Your task to perform on an android device: empty trash in google photos Image 0: 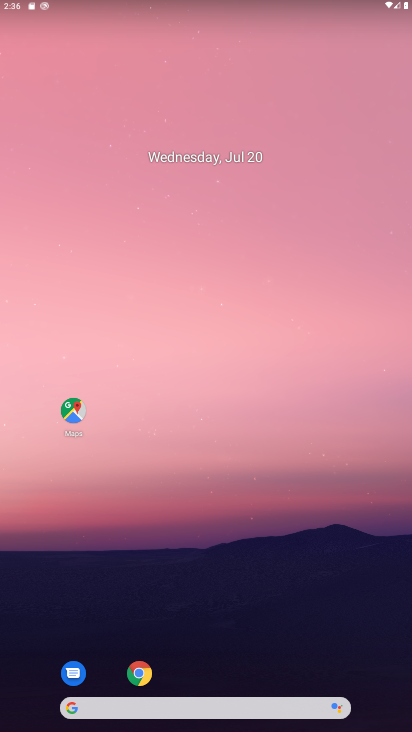
Step 0: drag from (207, 579) to (211, 80)
Your task to perform on an android device: empty trash in google photos Image 1: 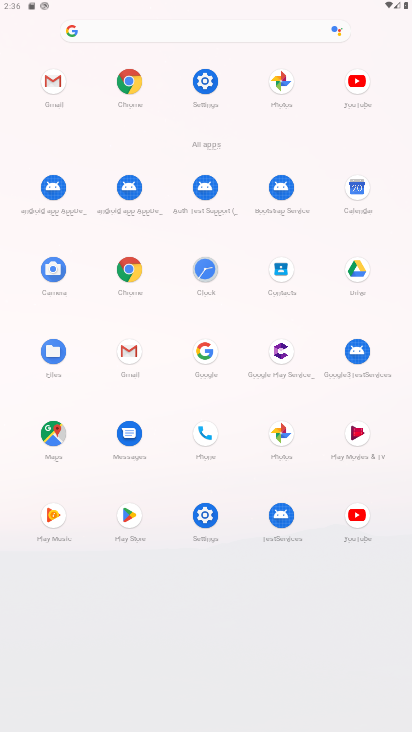
Step 1: click (278, 437)
Your task to perform on an android device: empty trash in google photos Image 2: 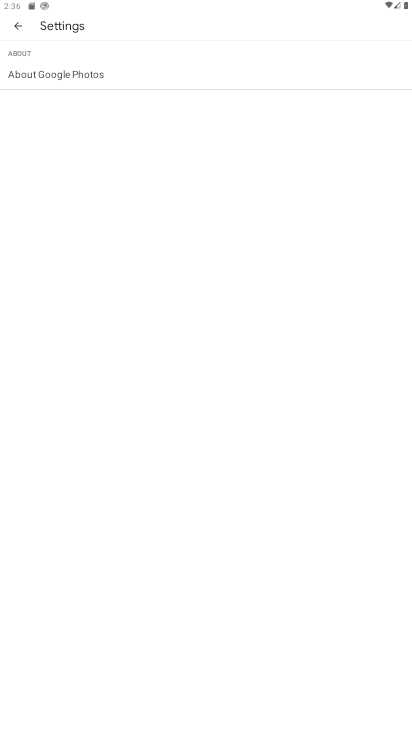
Step 2: click (17, 28)
Your task to perform on an android device: empty trash in google photos Image 3: 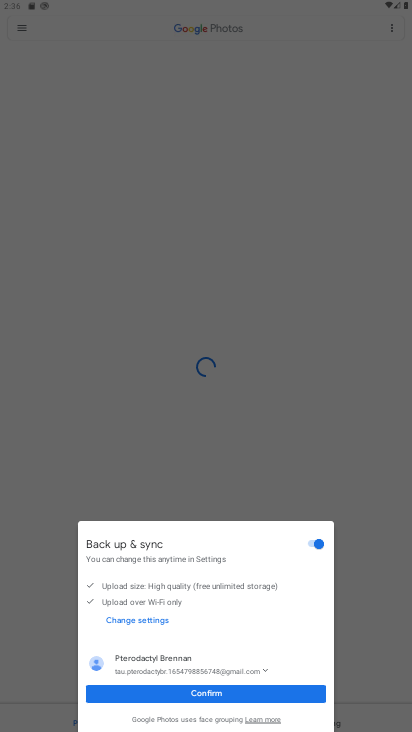
Step 3: click (18, 29)
Your task to perform on an android device: empty trash in google photos Image 4: 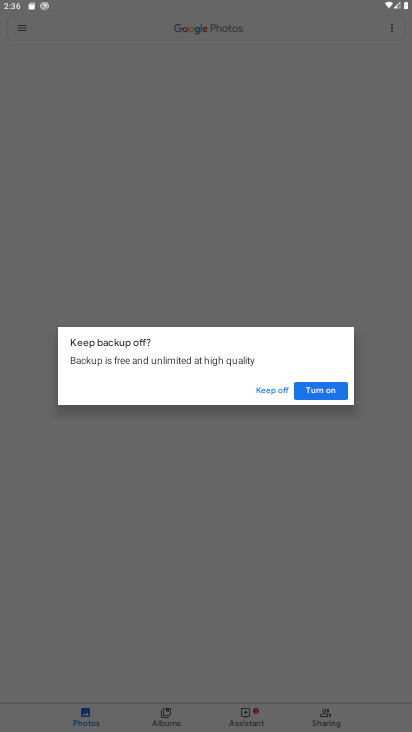
Step 4: click (333, 390)
Your task to perform on an android device: empty trash in google photos Image 5: 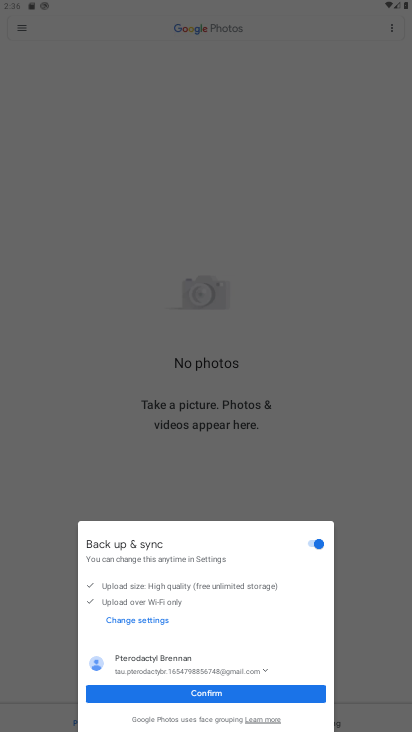
Step 5: click (228, 695)
Your task to perform on an android device: empty trash in google photos Image 6: 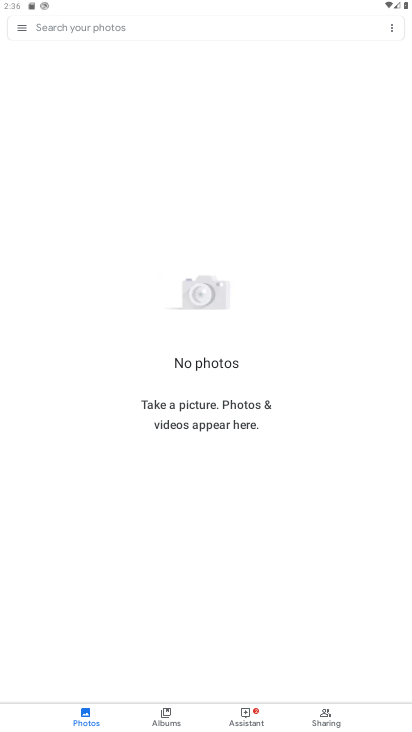
Step 6: click (22, 27)
Your task to perform on an android device: empty trash in google photos Image 7: 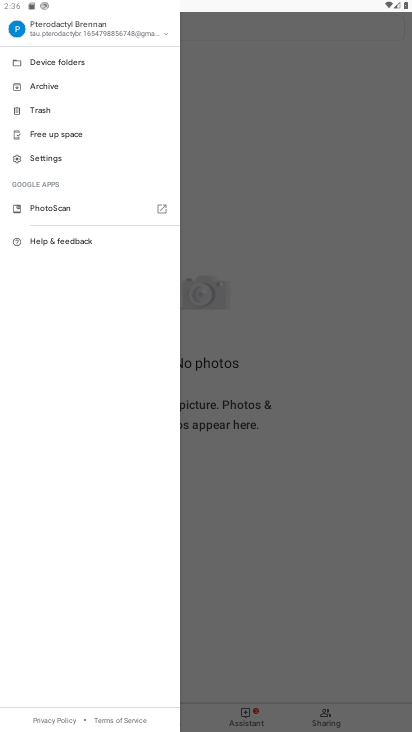
Step 7: click (46, 110)
Your task to perform on an android device: empty trash in google photos Image 8: 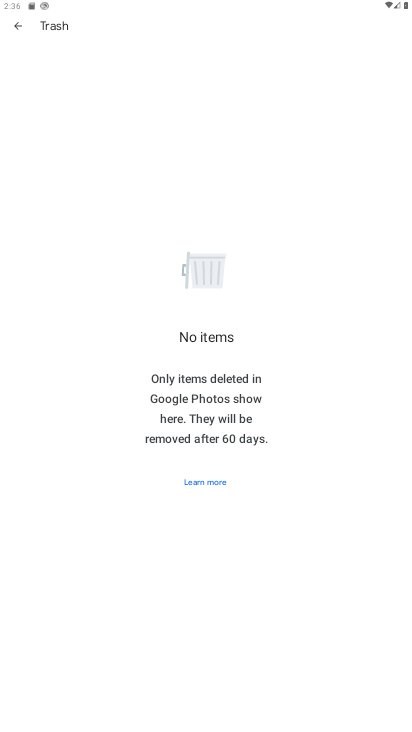
Step 8: task complete